Your task to perform on an android device: Open calendar and show me the fourth week of next month Image 0: 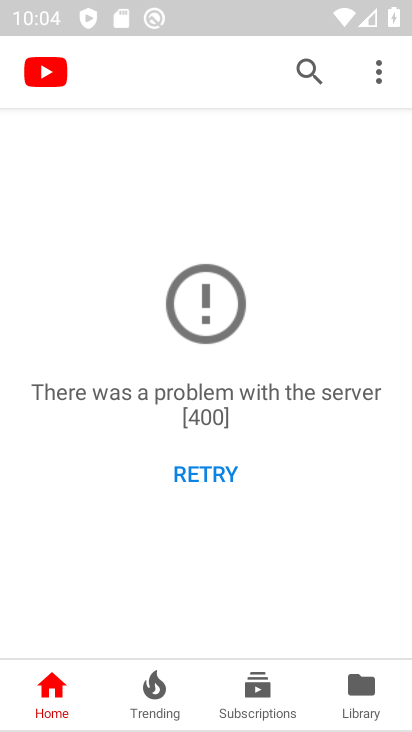
Step 0: press home button
Your task to perform on an android device: Open calendar and show me the fourth week of next month Image 1: 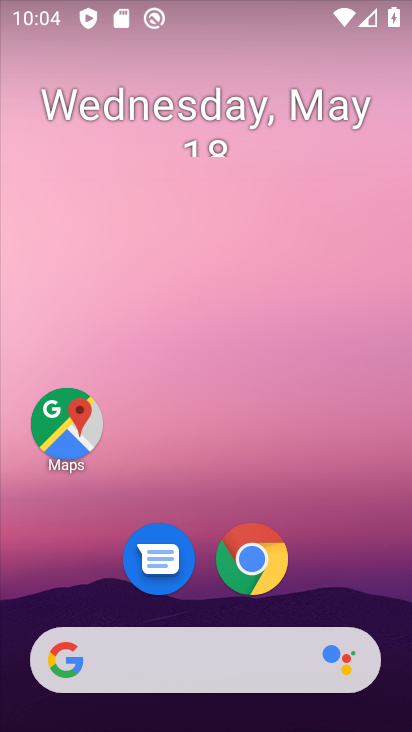
Step 1: drag from (223, 585) to (308, 38)
Your task to perform on an android device: Open calendar and show me the fourth week of next month Image 2: 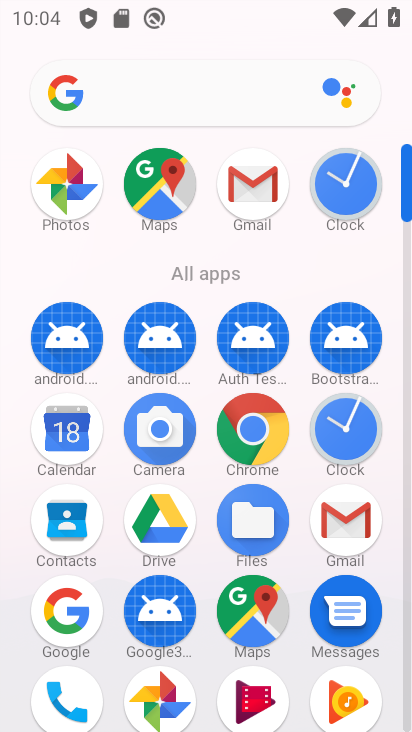
Step 2: click (70, 440)
Your task to perform on an android device: Open calendar and show me the fourth week of next month Image 3: 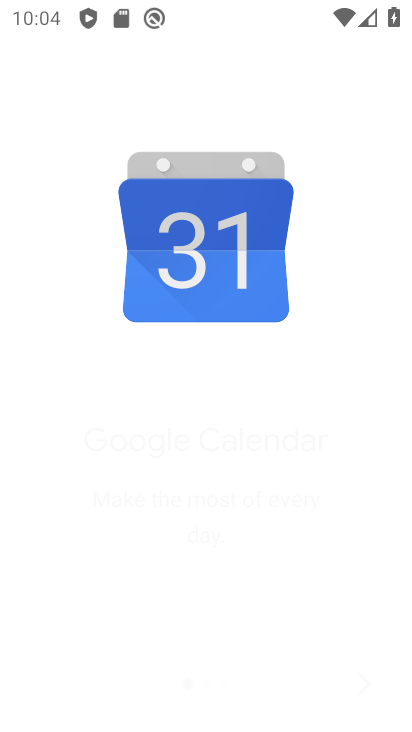
Step 3: click (72, 439)
Your task to perform on an android device: Open calendar and show me the fourth week of next month Image 4: 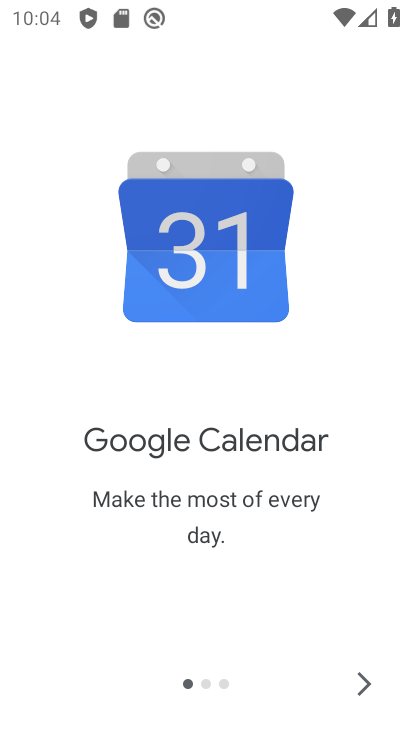
Step 4: click (365, 672)
Your task to perform on an android device: Open calendar and show me the fourth week of next month Image 5: 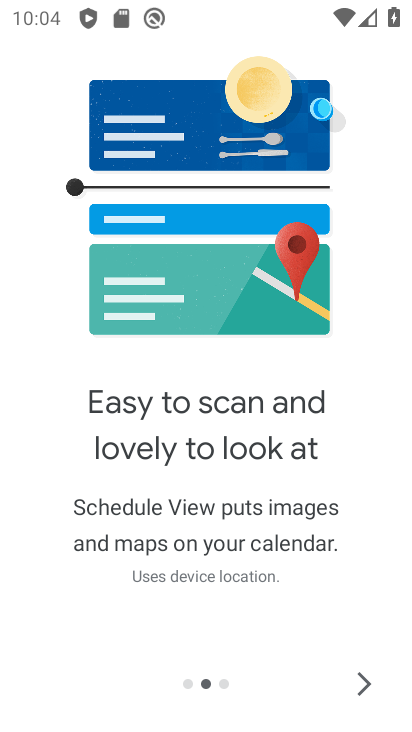
Step 5: click (367, 668)
Your task to perform on an android device: Open calendar and show me the fourth week of next month Image 6: 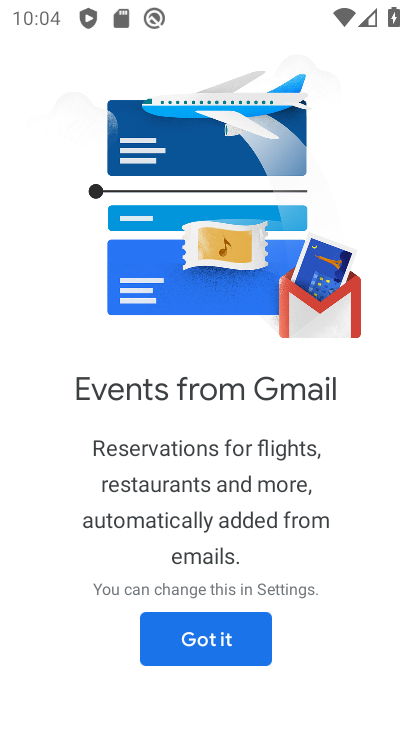
Step 6: click (209, 646)
Your task to perform on an android device: Open calendar and show me the fourth week of next month Image 7: 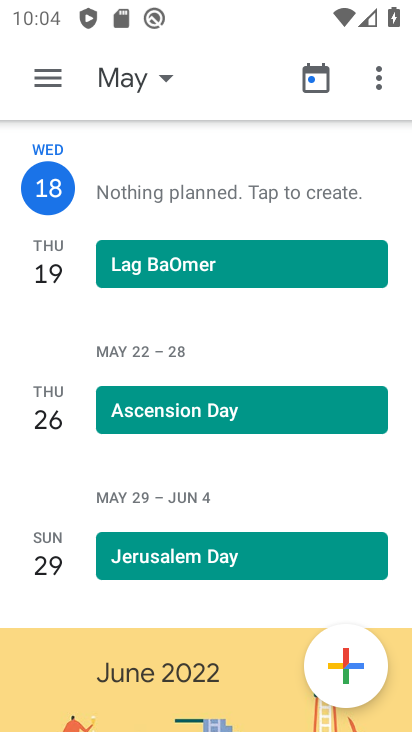
Step 7: click (51, 82)
Your task to perform on an android device: Open calendar and show me the fourth week of next month Image 8: 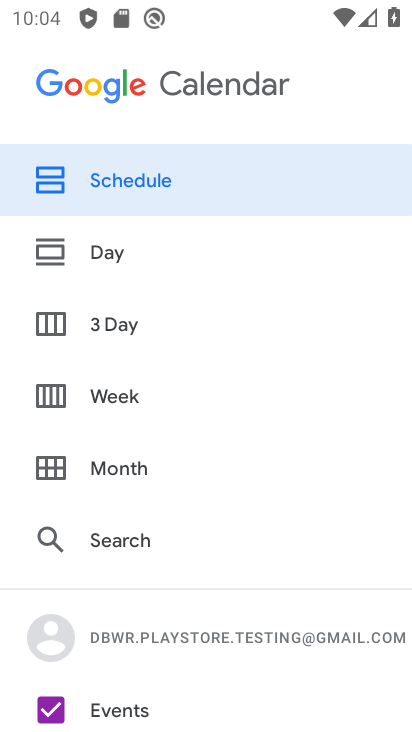
Step 8: click (144, 405)
Your task to perform on an android device: Open calendar and show me the fourth week of next month Image 9: 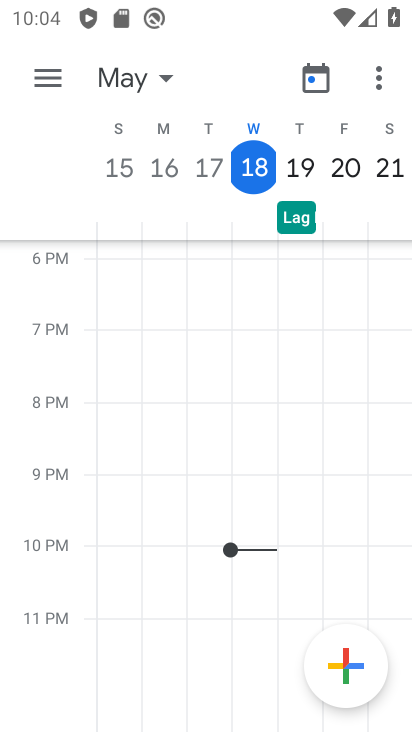
Step 9: task complete